Your task to perform on an android device: Turn on the flashlight Image 0: 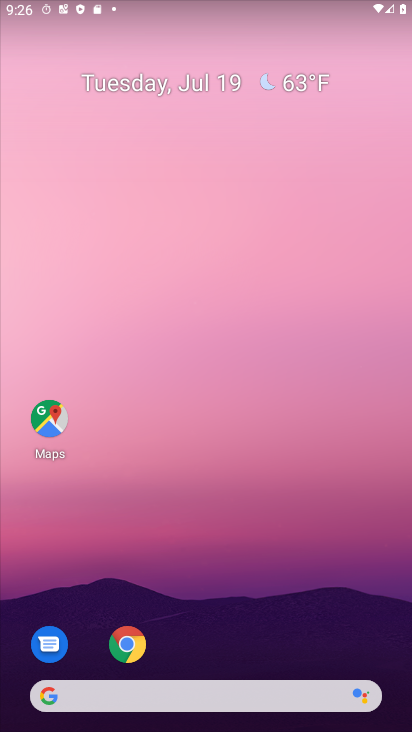
Step 0: drag from (220, 673) to (204, 195)
Your task to perform on an android device: Turn on the flashlight Image 1: 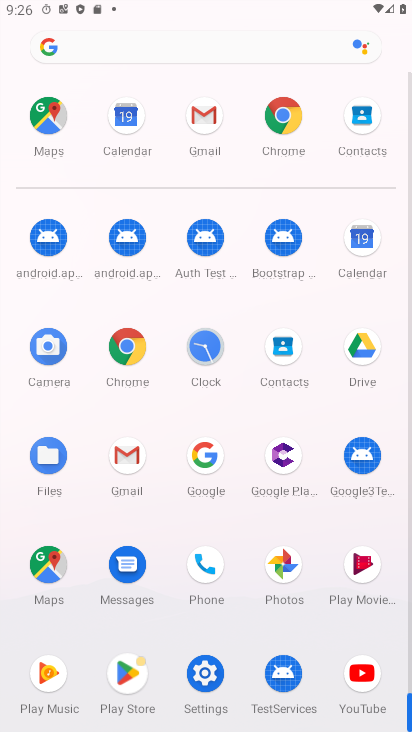
Step 1: task complete